Your task to perform on an android device: change the upload size in google photos Image 0: 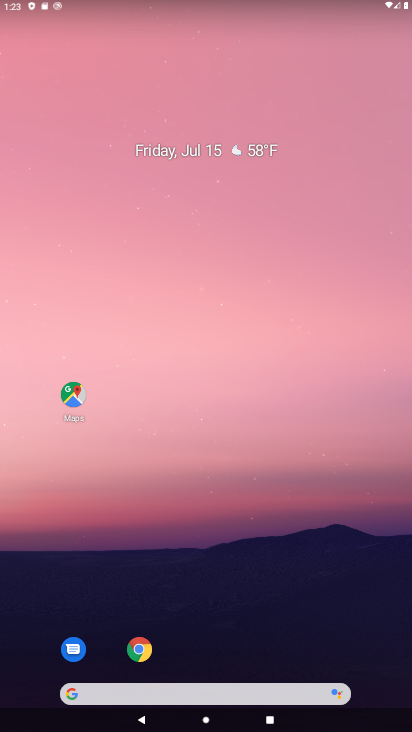
Step 0: drag from (307, 695) to (284, 66)
Your task to perform on an android device: change the upload size in google photos Image 1: 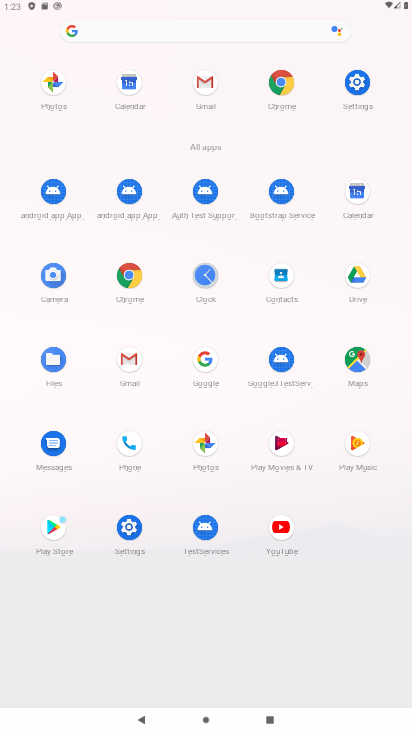
Step 1: click (204, 437)
Your task to perform on an android device: change the upload size in google photos Image 2: 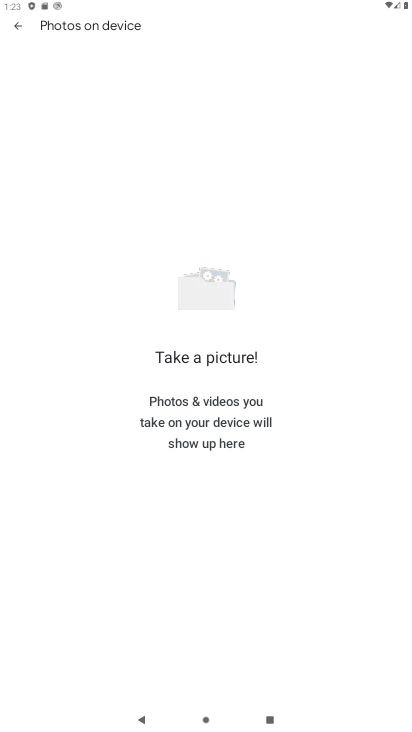
Step 2: press back button
Your task to perform on an android device: change the upload size in google photos Image 3: 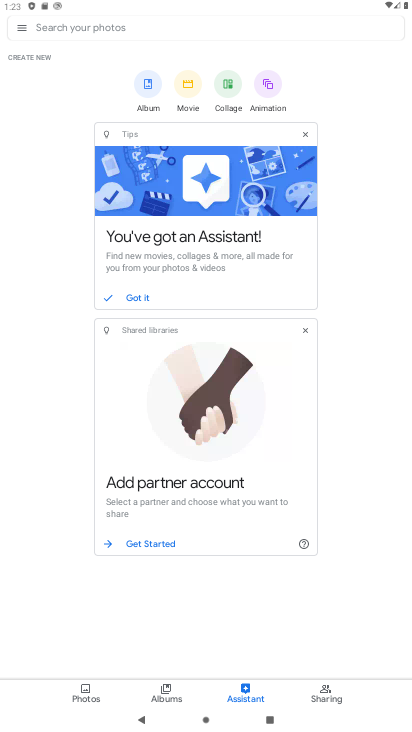
Step 3: click (22, 25)
Your task to perform on an android device: change the upload size in google photos Image 4: 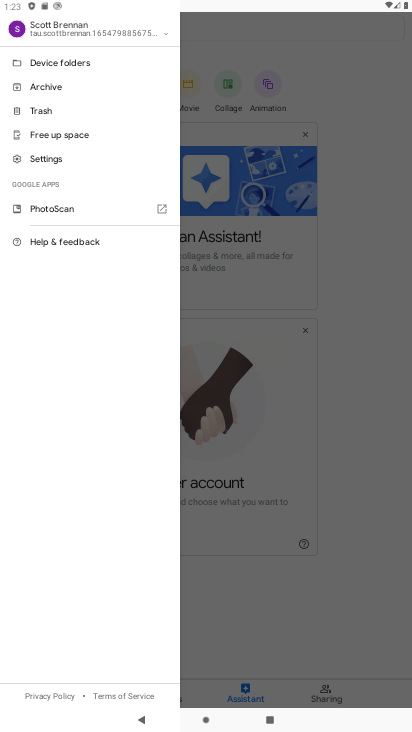
Step 4: click (55, 164)
Your task to perform on an android device: change the upload size in google photos Image 5: 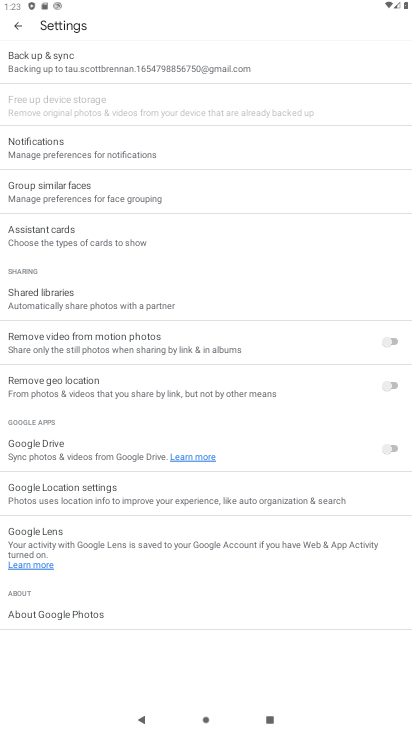
Step 5: click (53, 67)
Your task to perform on an android device: change the upload size in google photos Image 6: 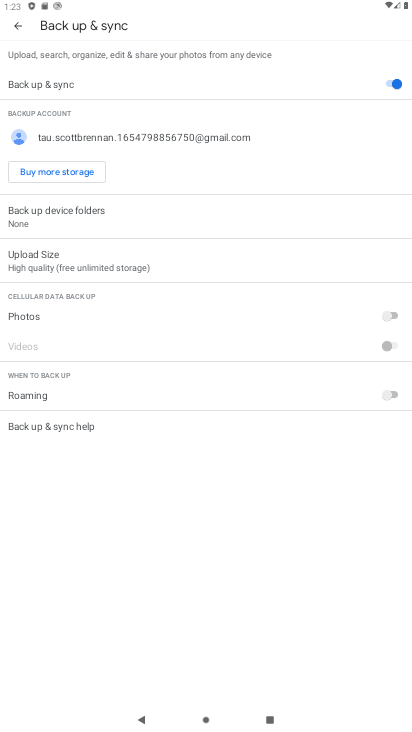
Step 6: click (78, 267)
Your task to perform on an android device: change the upload size in google photos Image 7: 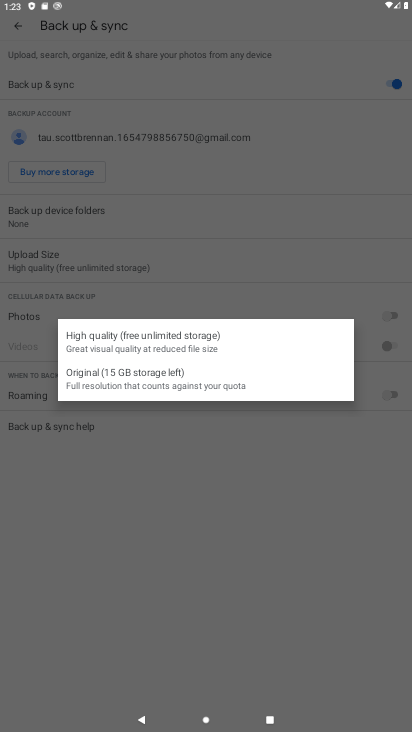
Step 7: click (129, 390)
Your task to perform on an android device: change the upload size in google photos Image 8: 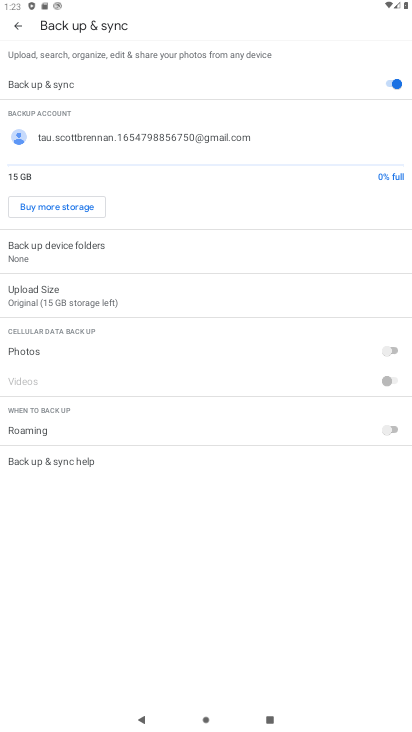
Step 8: task complete